Your task to perform on an android device: Show me popular games on the Play Store Image 0: 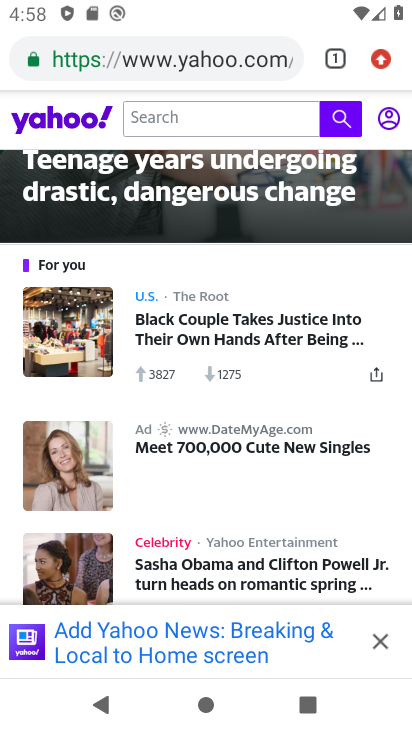
Step 0: press home button
Your task to perform on an android device: Show me popular games on the Play Store Image 1: 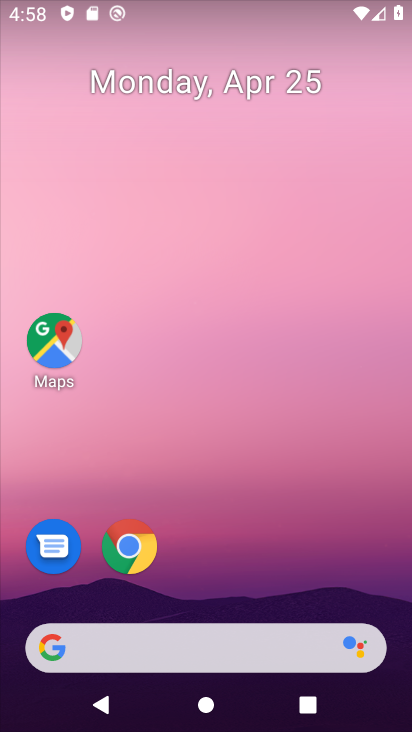
Step 1: drag from (368, 579) to (339, 217)
Your task to perform on an android device: Show me popular games on the Play Store Image 2: 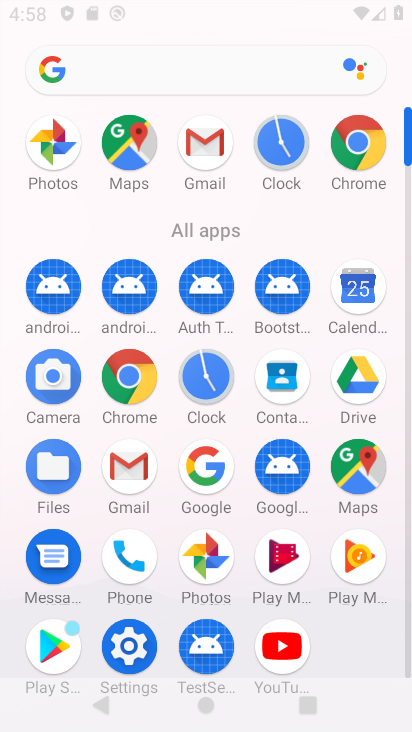
Step 2: drag from (339, 167) to (350, 69)
Your task to perform on an android device: Show me popular games on the Play Store Image 3: 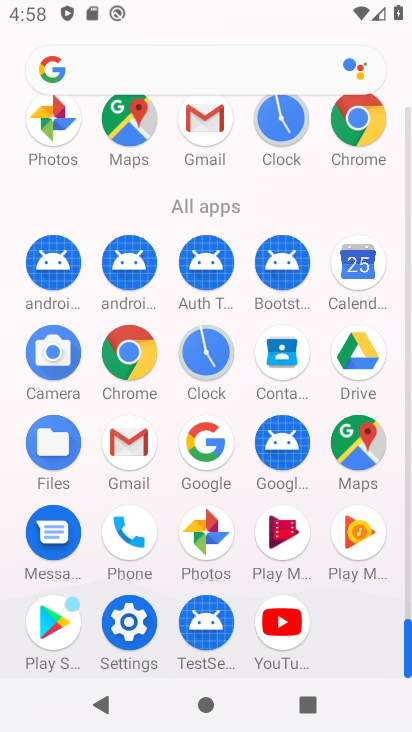
Step 3: click (53, 638)
Your task to perform on an android device: Show me popular games on the Play Store Image 4: 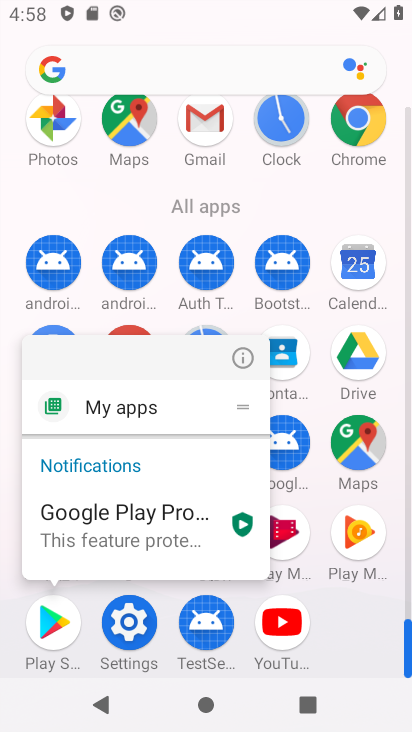
Step 4: click (53, 620)
Your task to perform on an android device: Show me popular games on the Play Store Image 5: 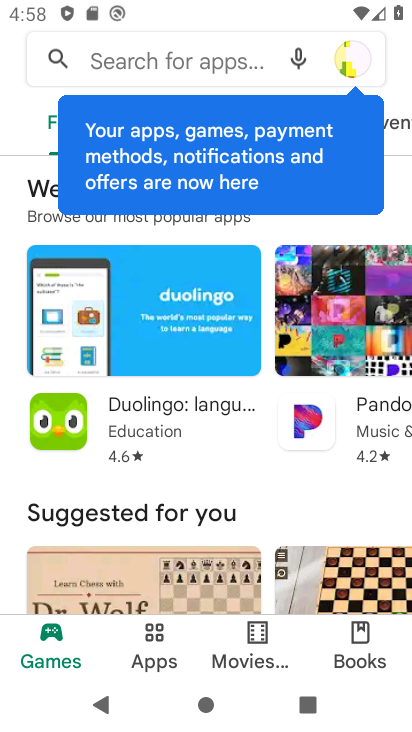
Step 5: click (158, 51)
Your task to perform on an android device: Show me popular games on the Play Store Image 6: 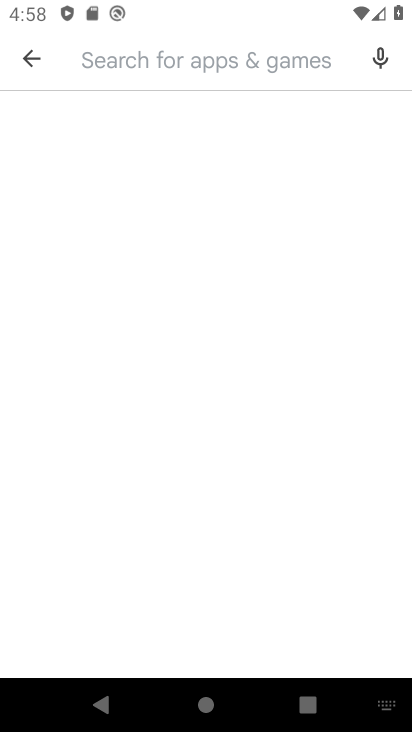
Step 6: type " popular games "
Your task to perform on an android device: Show me popular games on the Play Store Image 7: 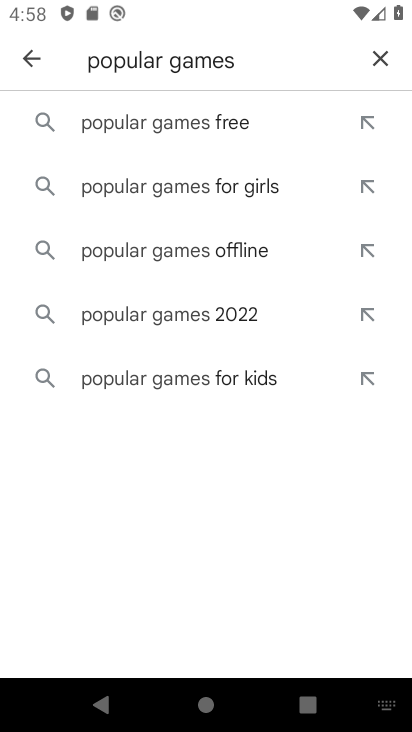
Step 7: click (114, 121)
Your task to perform on an android device: Show me popular games on the Play Store Image 8: 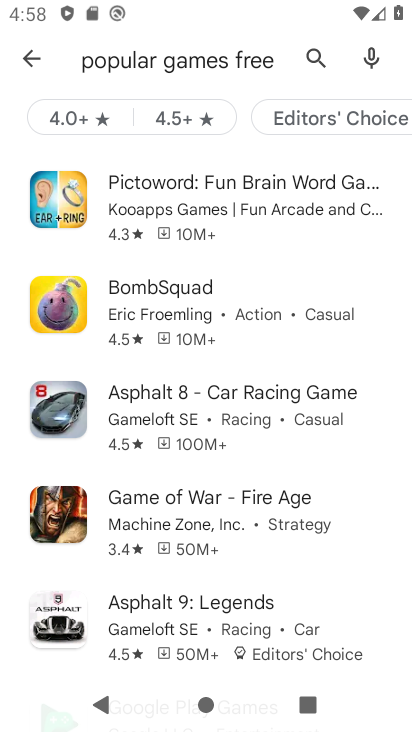
Step 8: task complete